Your task to perform on an android device: Go to Google maps Image 0: 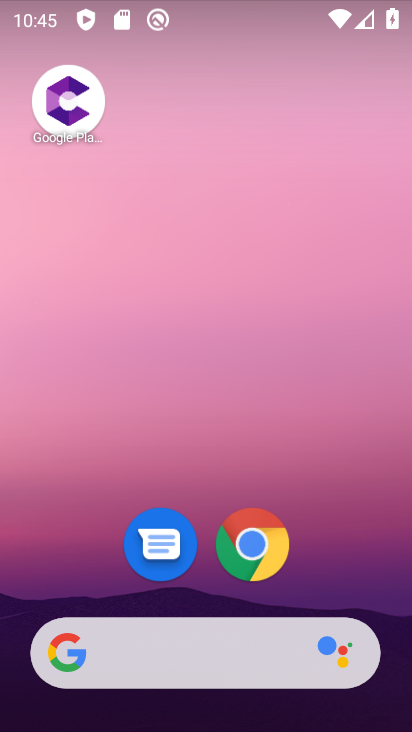
Step 0: drag from (198, 637) to (205, 73)
Your task to perform on an android device: Go to Google maps Image 1: 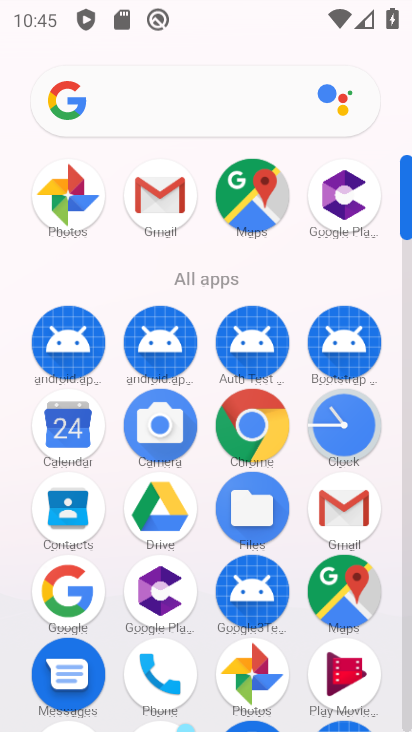
Step 1: click (246, 196)
Your task to perform on an android device: Go to Google maps Image 2: 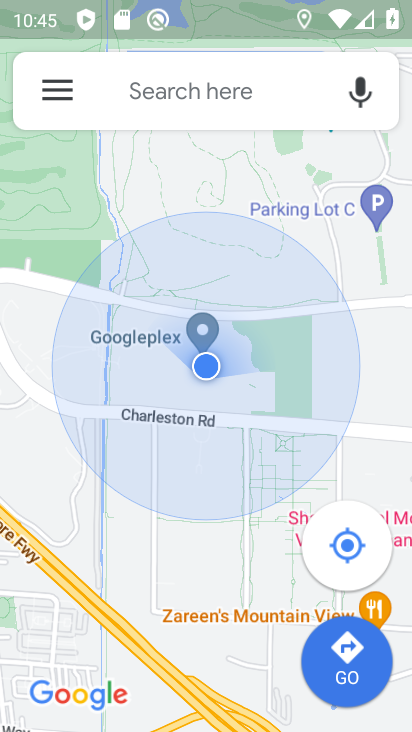
Step 2: task complete